Your task to perform on an android device: What's the weather? Image 0: 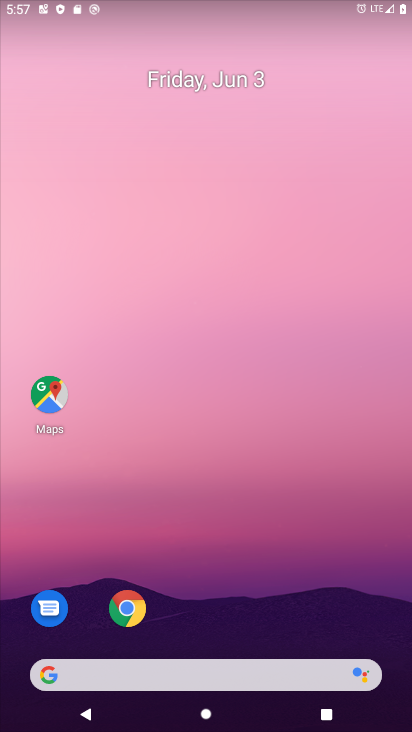
Step 0: click (281, 677)
Your task to perform on an android device: What's the weather? Image 1: 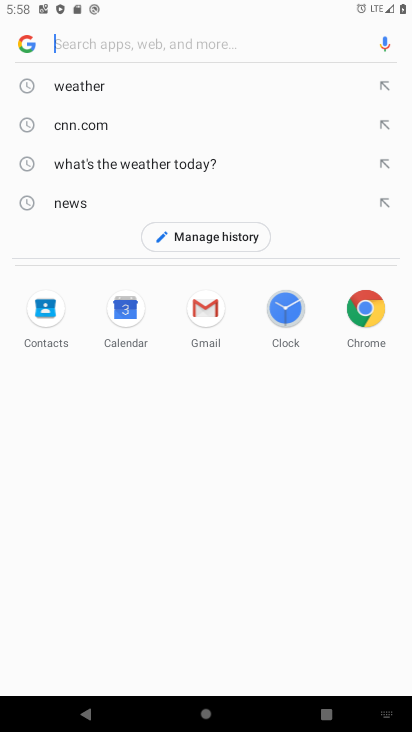
Step 1: click (69, 94)
Your task to perform on an android device: What's the weather? Image 2: 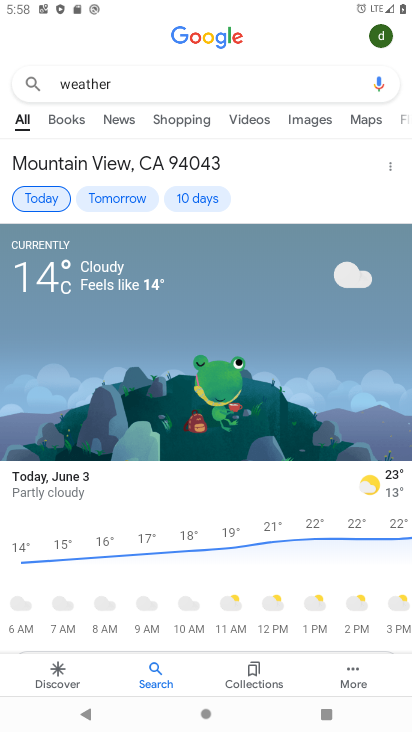
Step 2: task complete